Your task to perform on an android device: Add amazon basics triple a to the cart on newegg, then select checkout. Image 0: 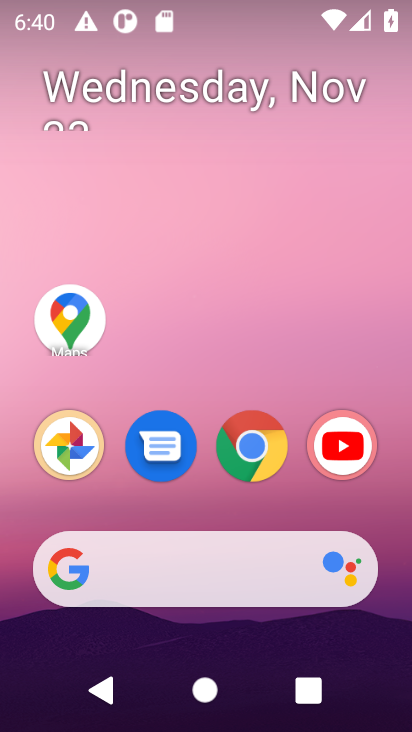
Step 0: click (218, 573)
Your task to perform on an android device: Add amazon basics triple a to the cart on newegg, then select checkout. Image 1: 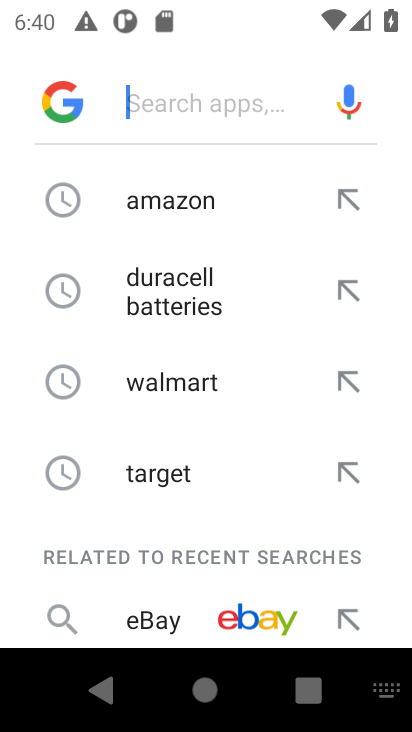
Step 1: type "newegg.com"
Your task to perform on an android device: Add amazon basics triple a to the cart on newegg, then select checkout. Image 2: 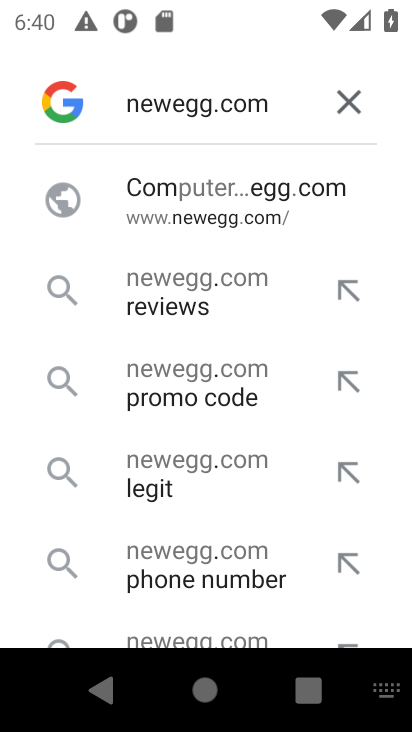
Step 2: click (188, 232)
Your task to perform on an android device: Add amazon basics triple a to the cart on newegg, then select checkout. Image 3: 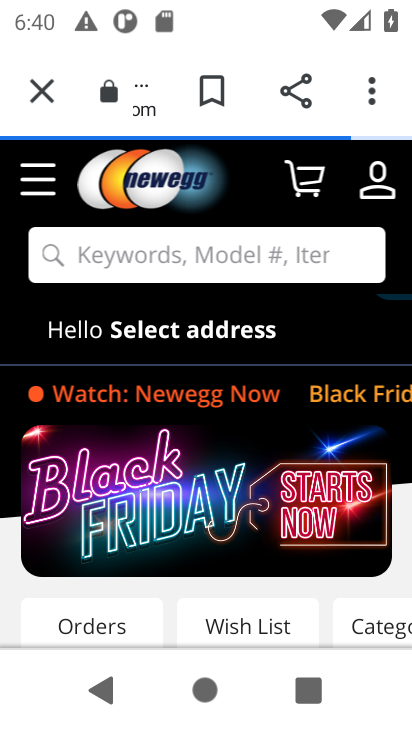
Step 3: click (188, 248)
Your task to perform on an android device: Add amazon basics triple a to the cart on newegg, then select checkout. Image 4: 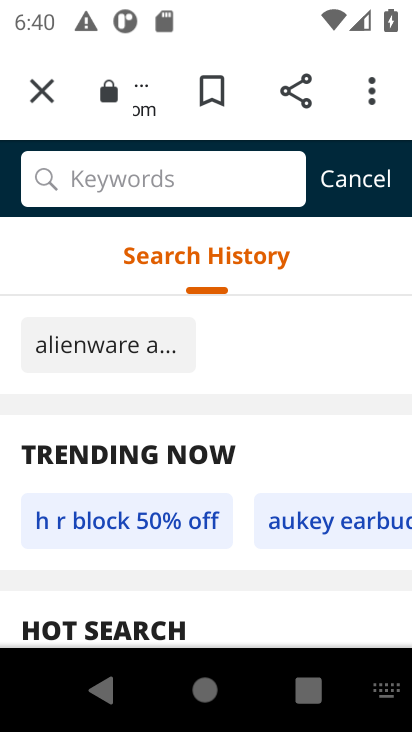
Step 4: type "amazon basics triple a"
Your task to perform on an android device: Add amazon basics triple a to the cart on newegg, then select checkout. Image 5: 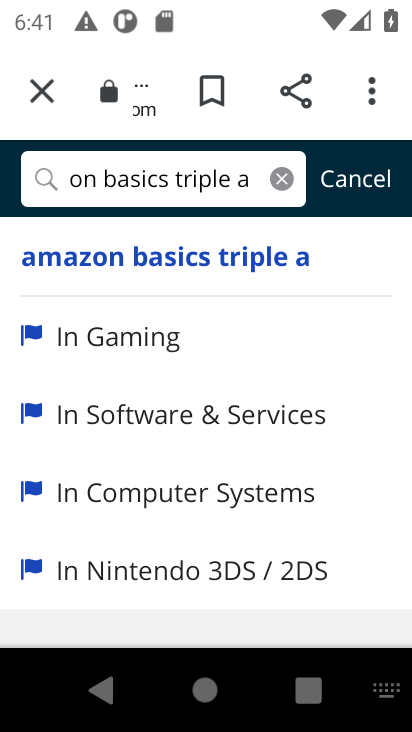
Step 5: click (300, 261)
Your task to perform on an android device: Add amazon basics triple a to the cart on newegg, then select checkout. Image 6: 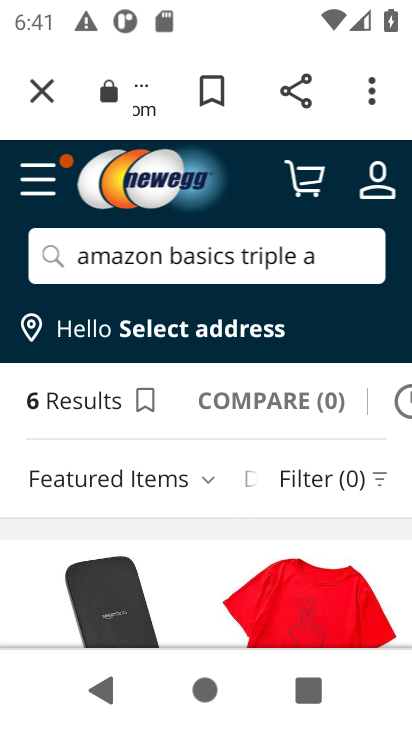
Step 6: task complete